Your task to perform on an android device: Open CNN.com Image 0: 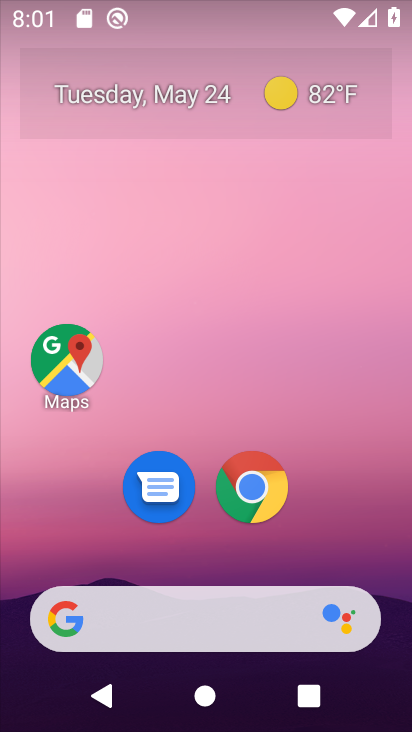
Step 0: drag from (314, 533) to (301, 88)
Your task to perform on an android device: Open CNN.com Image 1: 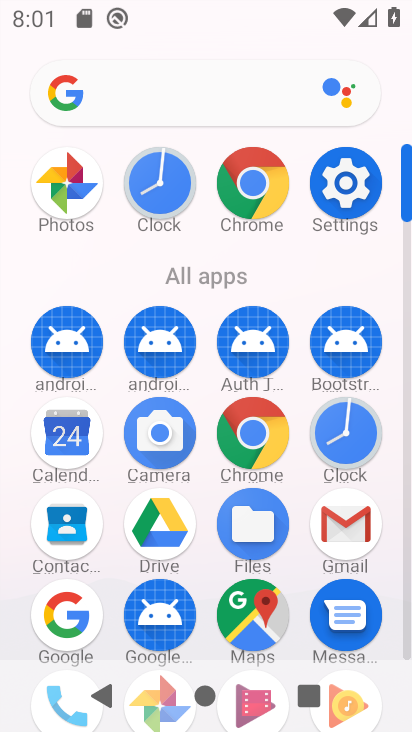
Step 1: click (258, 187)
Your task to perform on an android device: Open CNN.com Image 2: 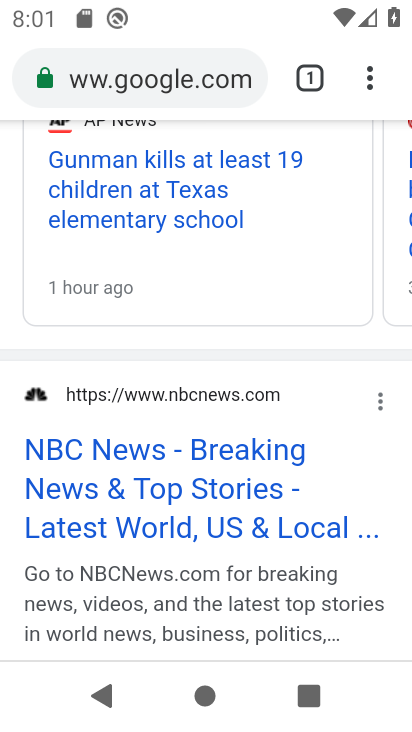
Step 2: click (191, 75)
Your task to perform on an android device: Open CNN.com Image 3: 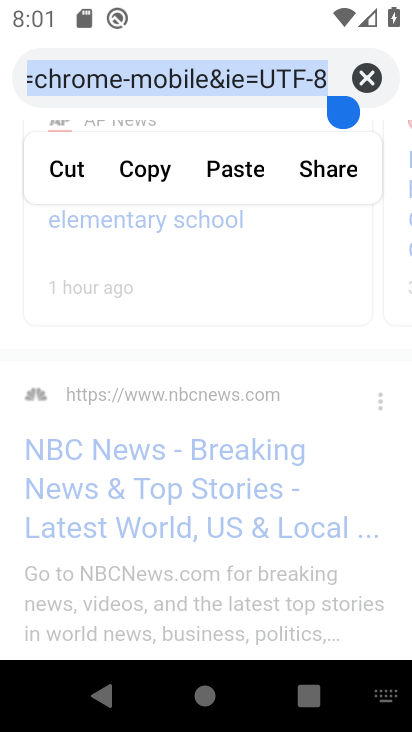
Step 3: click (358, 81)
Your task to perform on an android device: Open CNN.com Image 4: 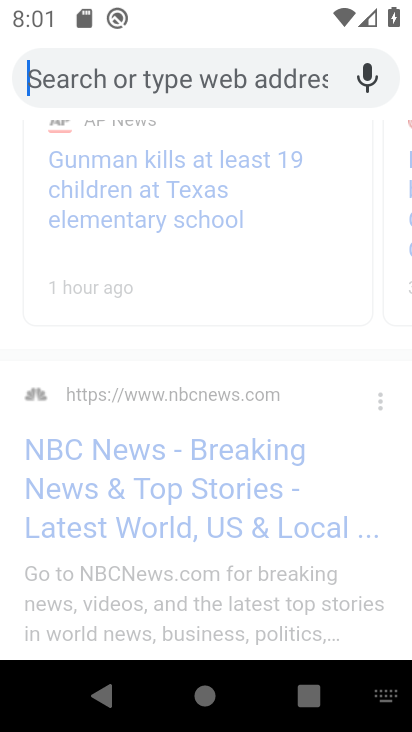
Step 4: type "cnn.com"
Your task to perform on an android device: Open CNN.com Image 5: 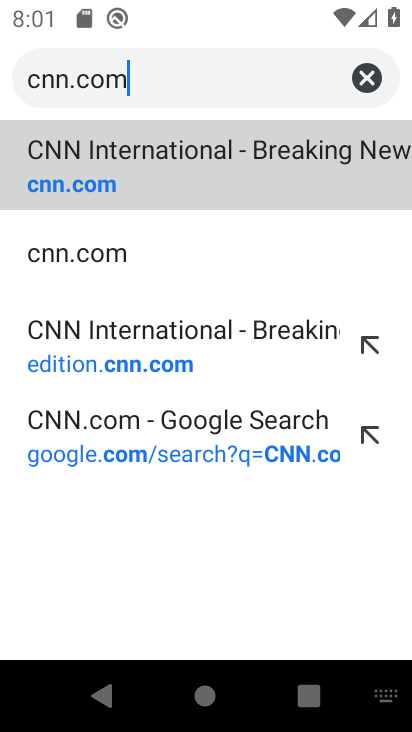
Step 5: click (85, 164)
Your task to perform on an android device: Open CNN.com Image 6: 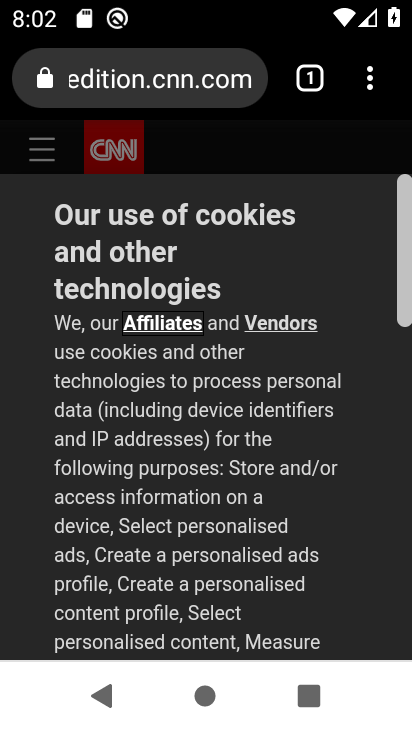
Step 6: task complete